Your task to perform on an android device: Go to network settings Image 0: 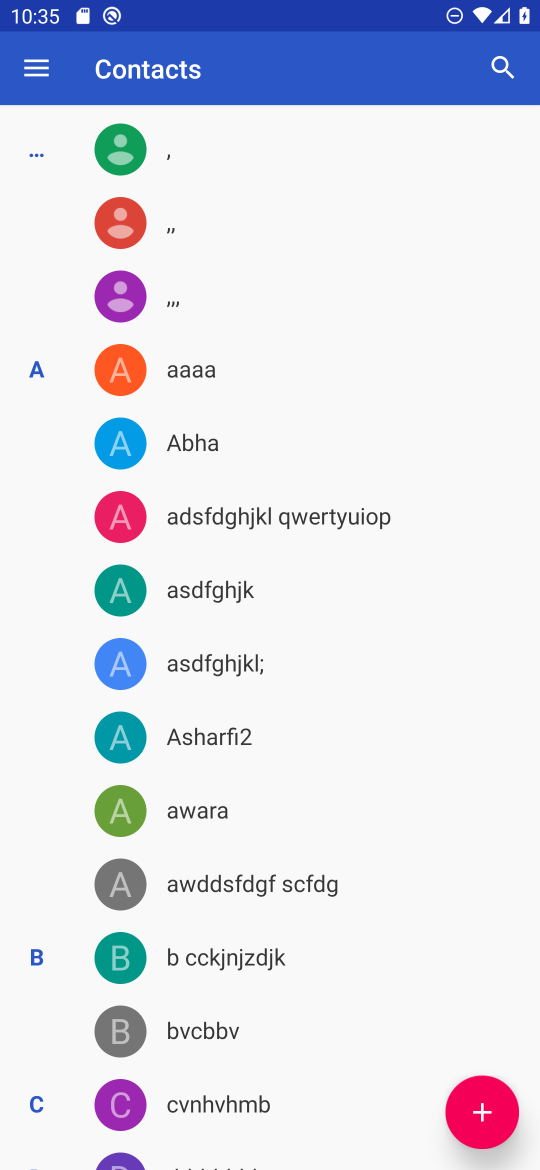
Step 0: press home button
Your task to perform on an android device: Go to network settings Image 1: 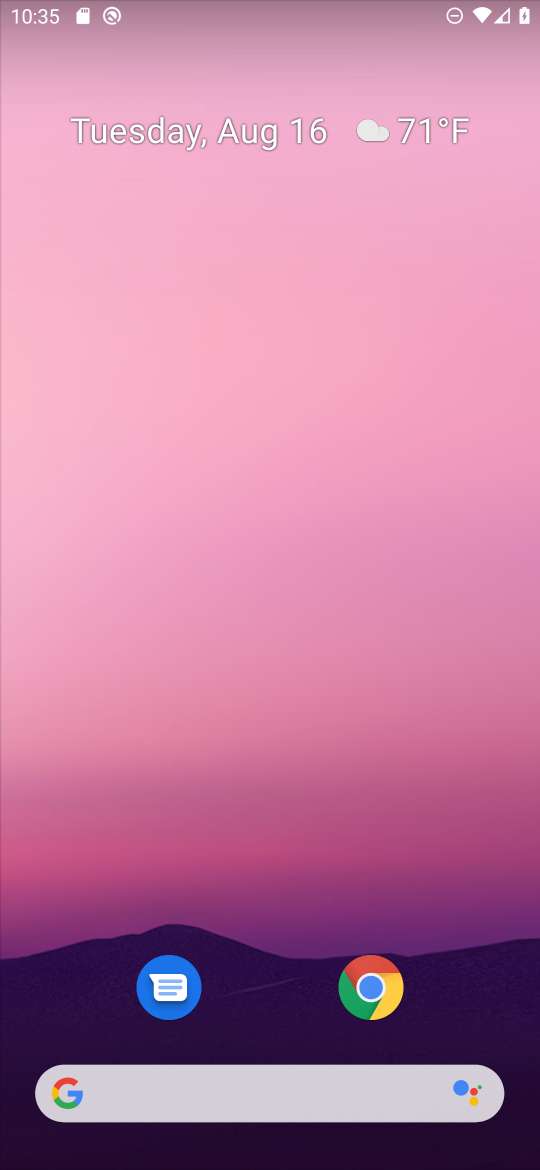
Step 1: drag from (38, 1122) to (267, 315)
Your task to perform on an android device: Go to network settings Image 2: 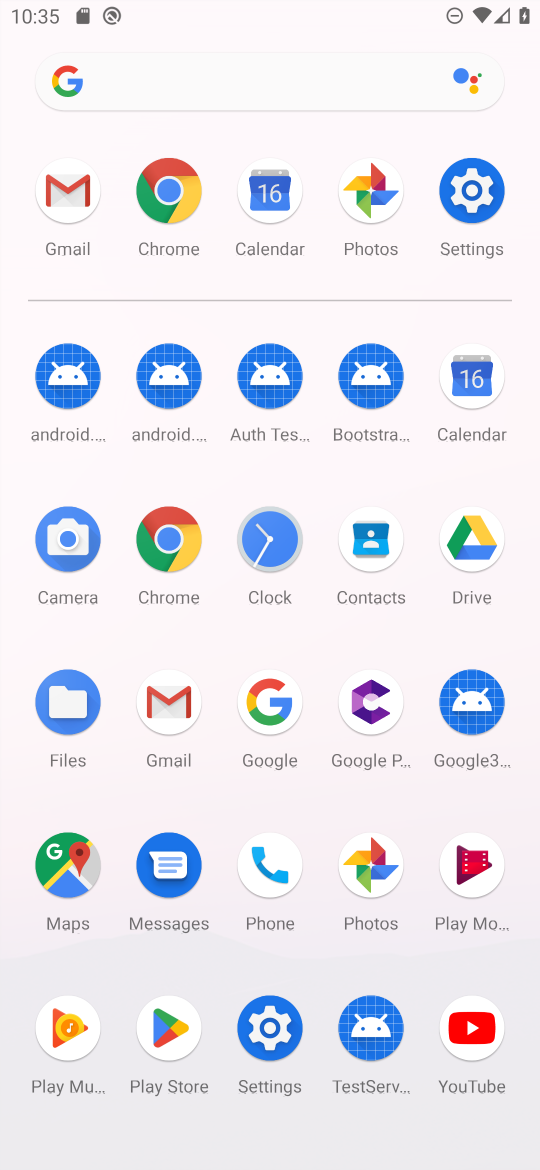
Step 2: click (462, 200)
Your task to perform on an android device: Go to network settings Image 3: 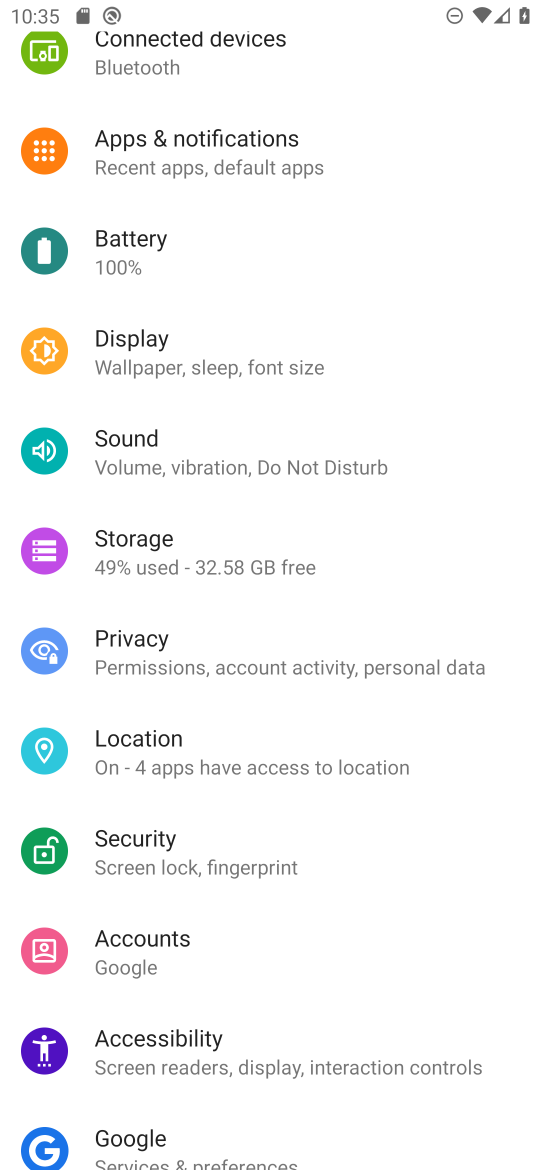
Step 3: drag from (372, 87) to (422, 747)
Your task to perform on an android device: Go to network settings Image 4: 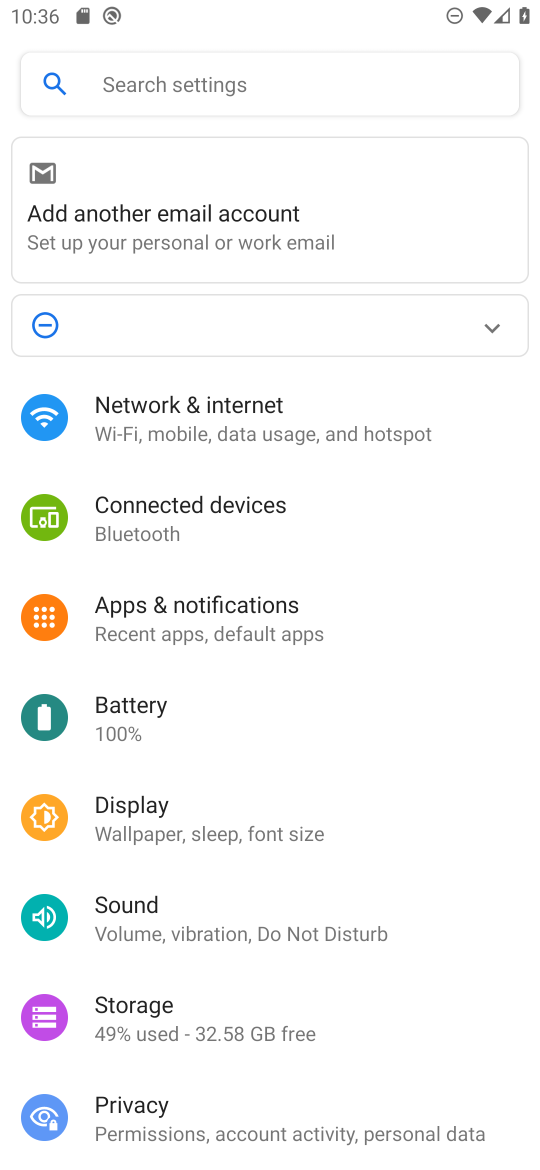
Step 4: click (229, 398)
Your task to perform on an android device: Go to network settings Image 5: 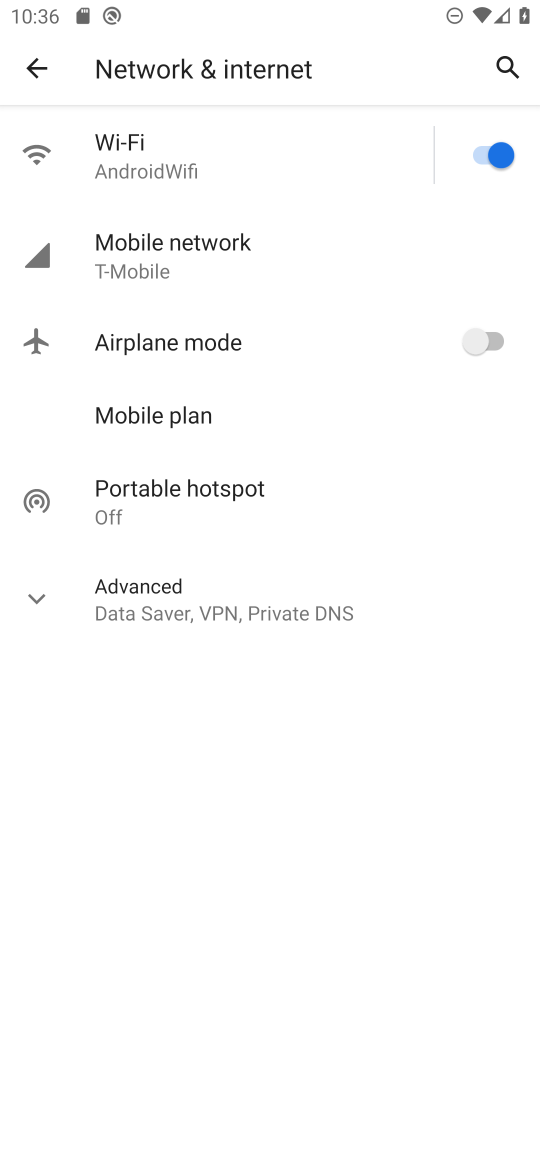
Step 5: task complete